Your task to perform on an android device: uninstall "Google Find My Device" Image 0: 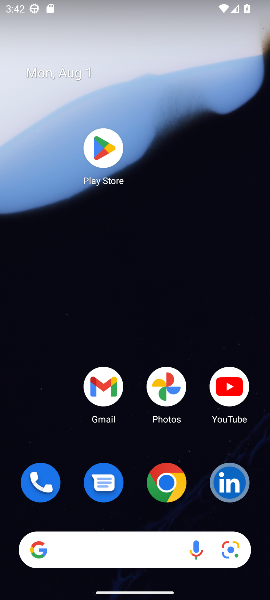
Step 0: click (109, 146)
Your task to perform on an android device: uninstall "Google Find My Device" Image 1: 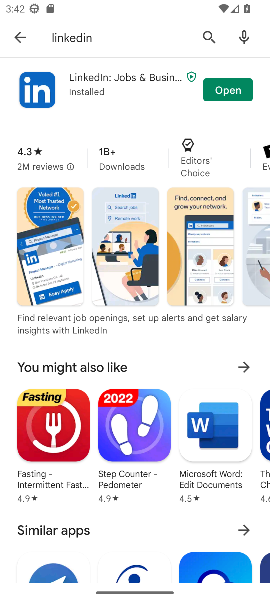
Step 1: click (204, 34)
Your task to perform on an android device: uninstall "Google Find My Device" Image 2: 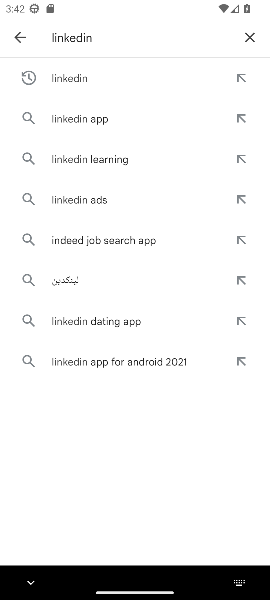
Step 2: click (244, 32)
Your task to perform on an android device: uninstall "Google Find My Device" Image 3: 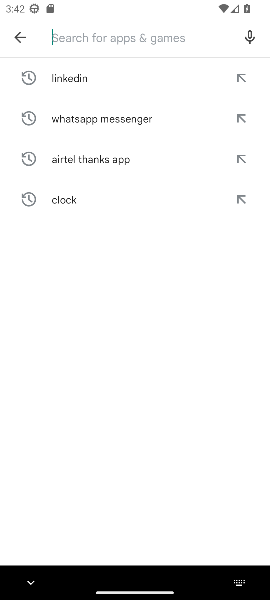
Step 3: type "Google Find My Device"
Your task to perform on an android device: uninstall "Google Find My Device" Image 4: 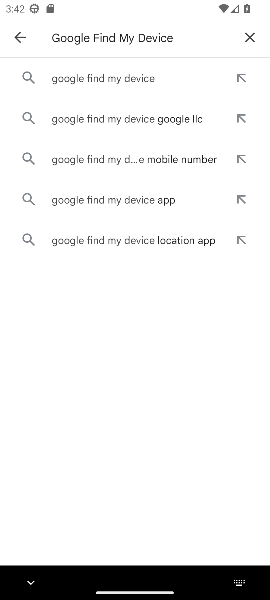
Step 4: click (134, 77)
Your task to perform on an android device: uninstall "Google Find My Device" Image 5: 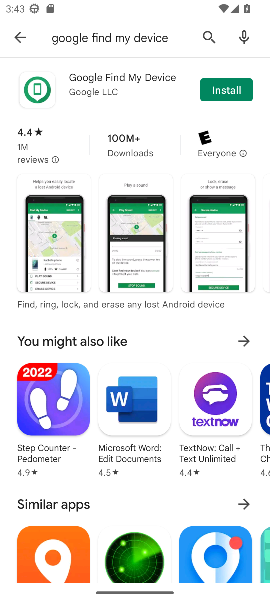
Step 5: task complete